Your task to perform on an android device: Open the calendar and show me this week's events? Image 0: 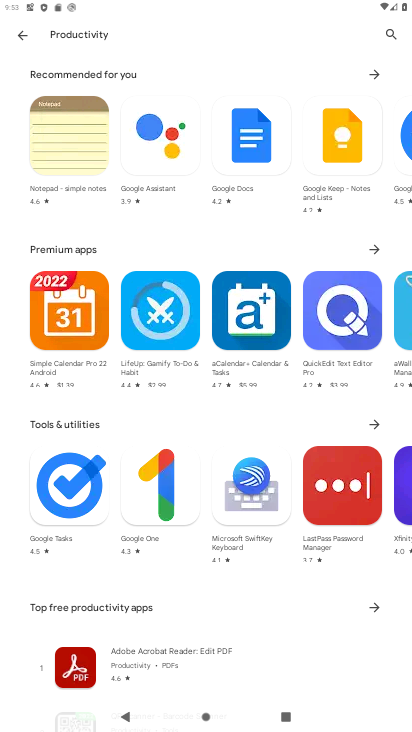
Step 0: press home button
Your task to perform on an android device: Open the calendar and show me this week's events? Image 1: 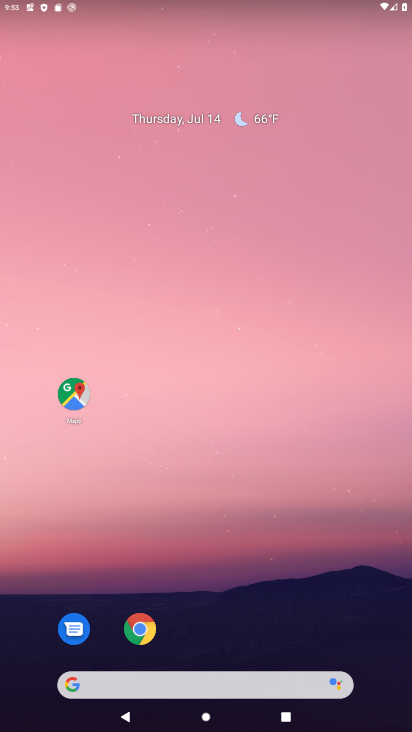
Step 1: drag from (322, 591) to (294, 131)
Your task to perform on an android device: Open the calendar and show me this week's events? Image 2: 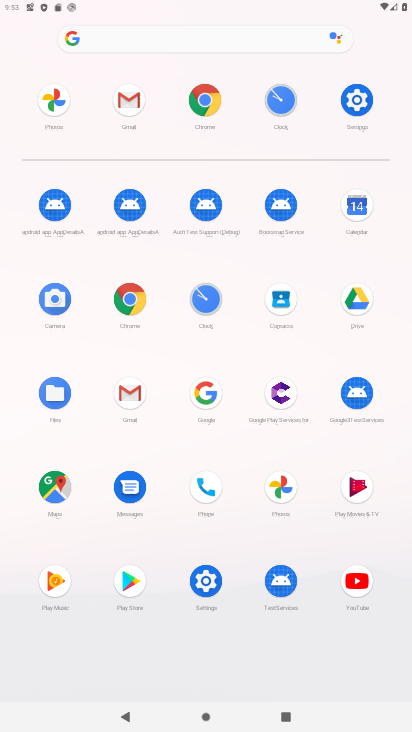
Step 2: click (364, 205)
Your task to perform on an android device: Open the calendar and show me this week's events? Image 3: 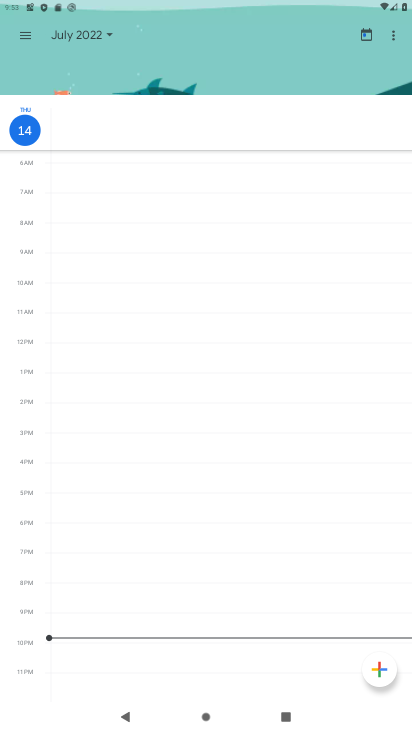
Step 3: click (17, 35)
Your task to perform on an android device: Open the calendar and show me this week's events? Image 4: 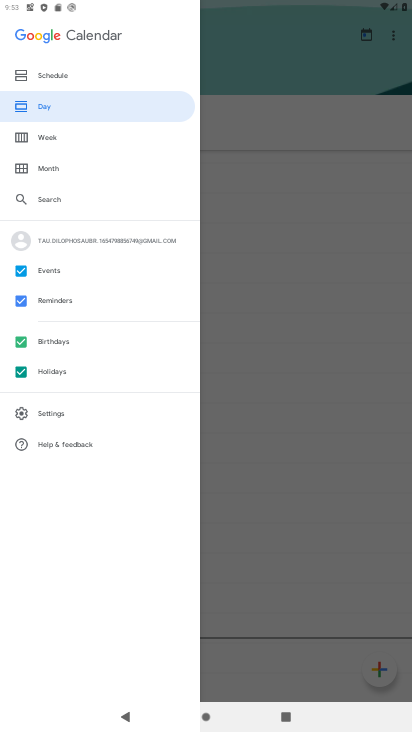
Step 4: click (46, 143)
Your task to perform on an android device: Open the calendar and show me this week's events? Image 5: 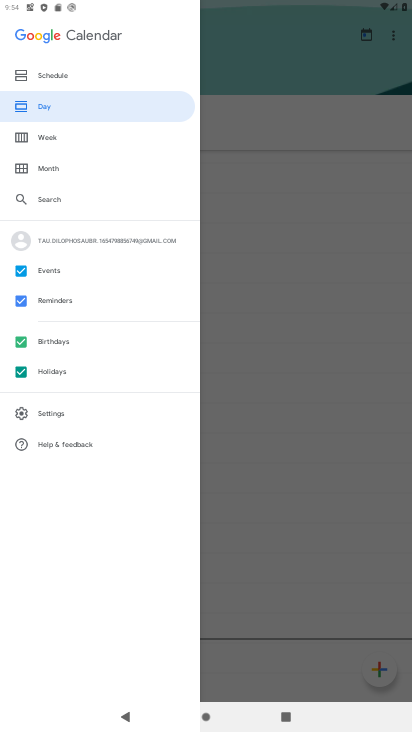
Step 5: click (39, 137)
Your task to perform on an android device: Open the calendar and show me this week's events? Image 6: 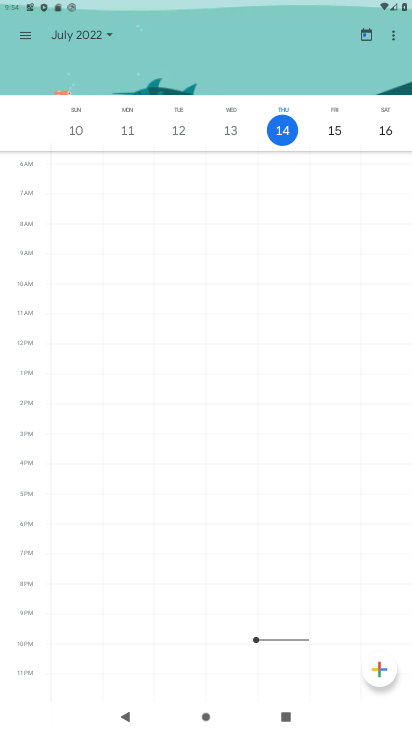
Step 6: task complete